Your task to perform on an android device: open sync settings in chrome Image 0: 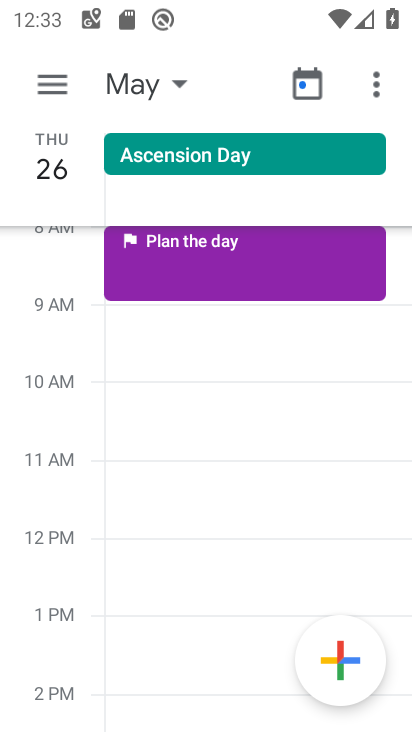
Step 0: press home button
Your task to perform on an android device: open sync settings in chrome Image 1: 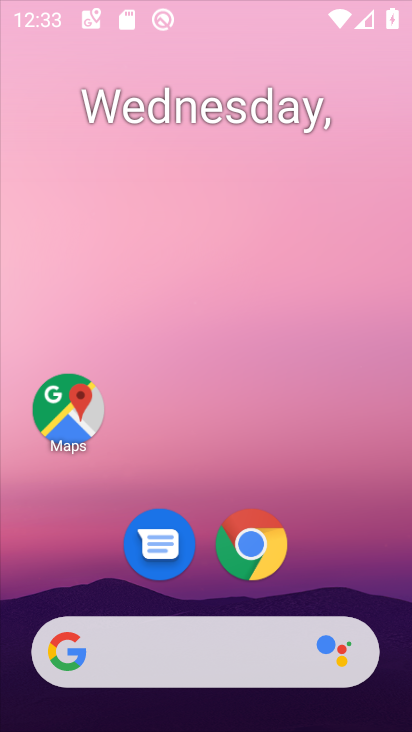
Step 1: drag from (213, 465) to (163, 193)
Your task to perform on an android device: open sync settings in chrome Image 2: 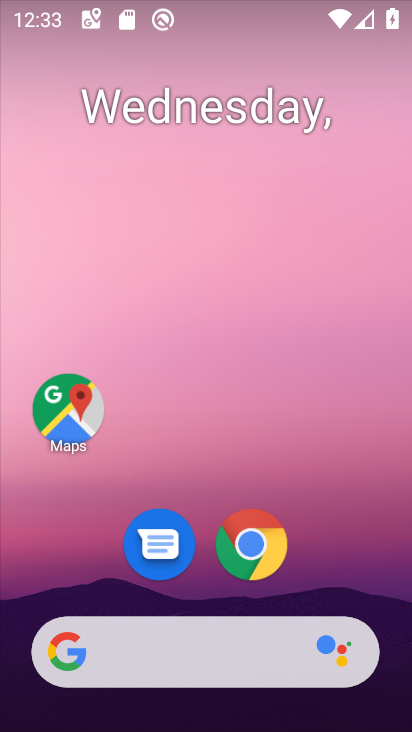
Step 2: drag from (227, 433) to (227, 38)
Your task to perform on an android device: open sync settings in chrome Image 3: 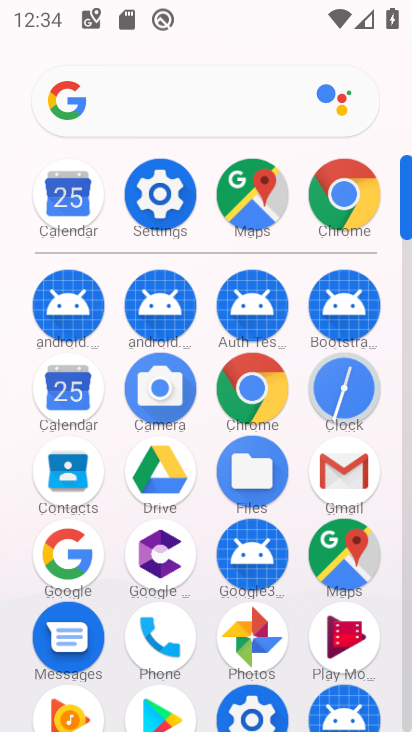
Step 3: click (255, 401)
Your task to perform on an android device: open sync settings in chrome Image 4: 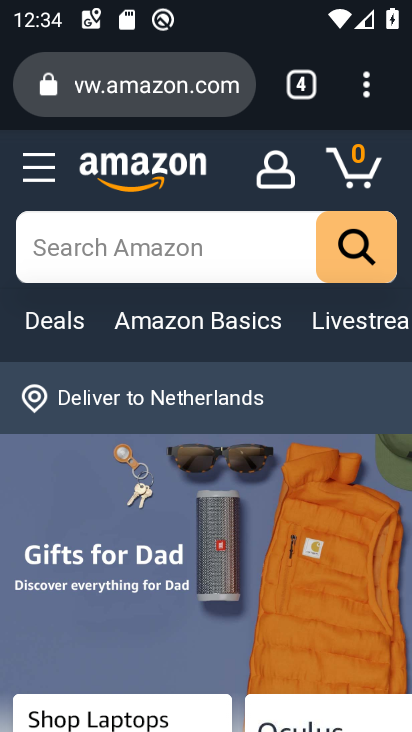
Step 4: click (367, 99)
Your task to perform on an android device: open sync settings in chrome Image 5: 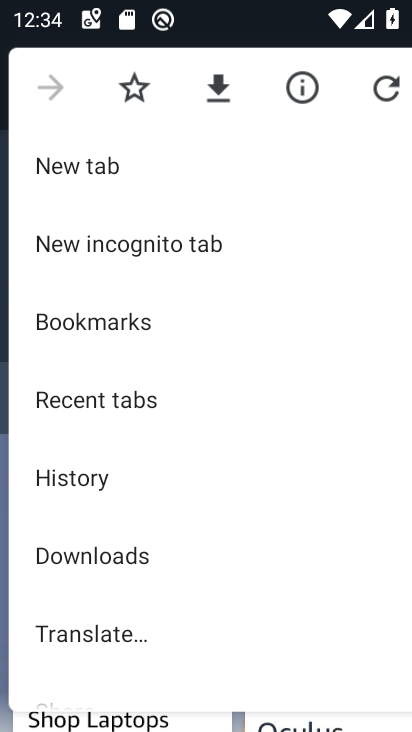
Step 5: drag from (181, 522) to (201, 197)
Your task to perform on an android device: open sync settings in chrome Image 6: 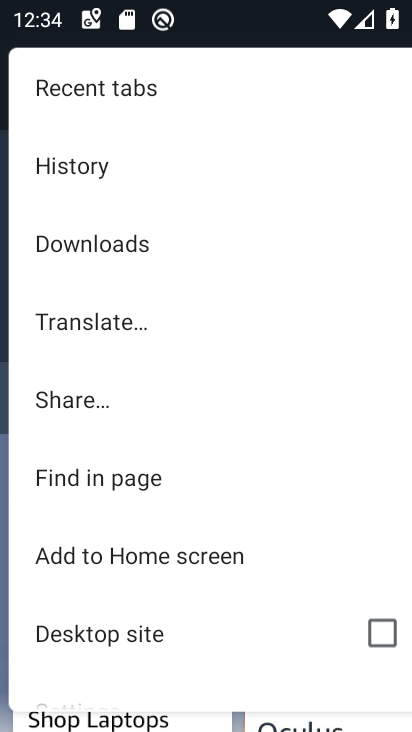
Step 6: drag from (146, 548) to (174, 208)
Your task to perform on an android device: open sync settings in chrome Image 7: 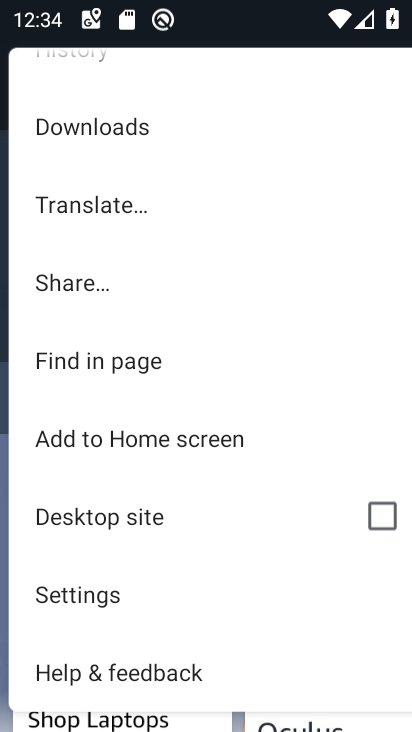
Step 7: click (148, 604)
Your task to perform on an android device: open sync settings in chrome Image 8: 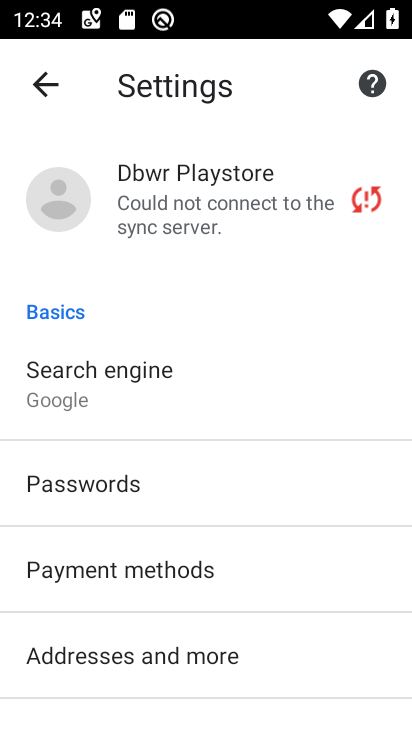
Step 8: click (239, 206)
Your task to perform on an android device: open sync settings in chrome Image 9: 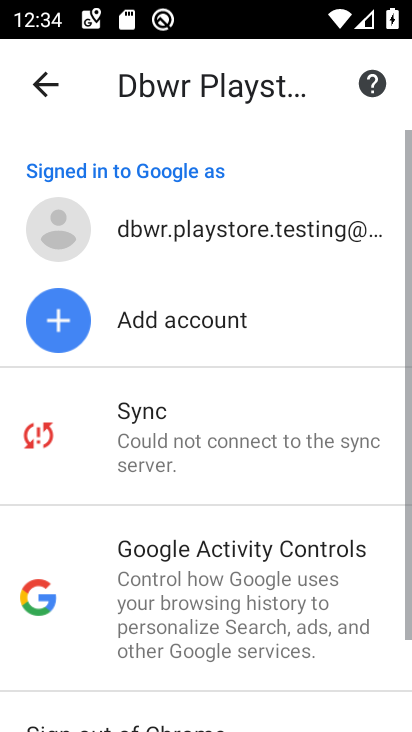
Step 9: click (211, 432)
Your task to perform on an android device: open sync settings in chrome Image 10: 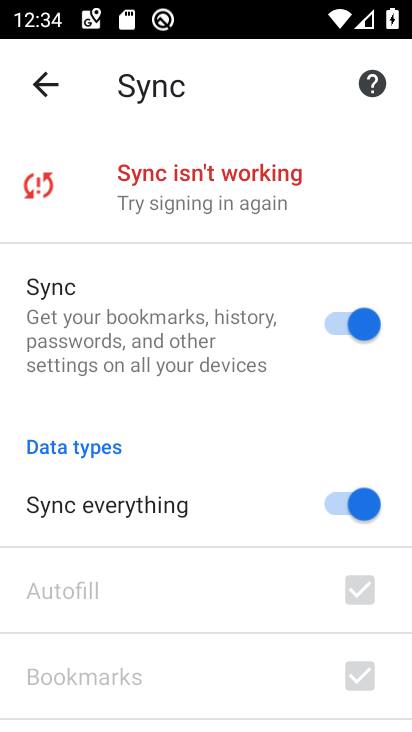
Step 10: click (203, 205)
Your task to perform on an android device: open sync settings in chrome Image 11: 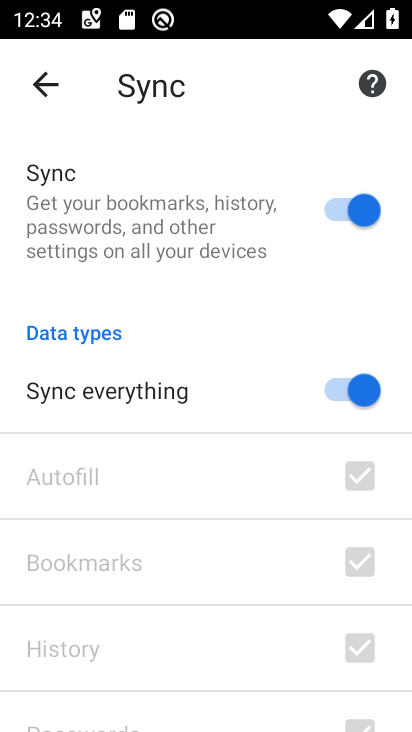
Step 11: task complete